Your task to perform on an android device: change keyboard looks Image 0: 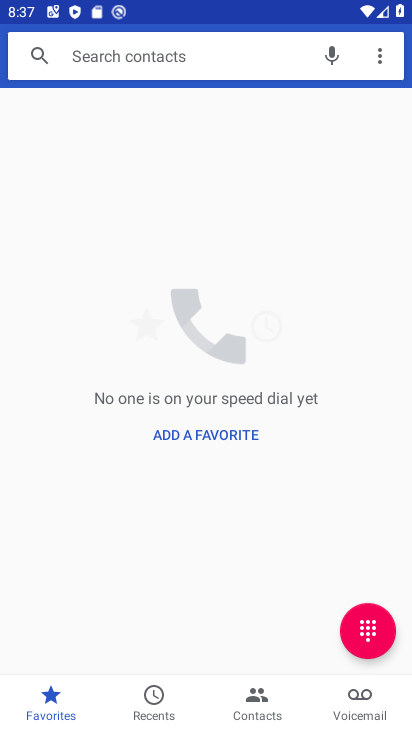
Step 0: press home button
Your task to perform on an android device: change keyboard looks Image 1: 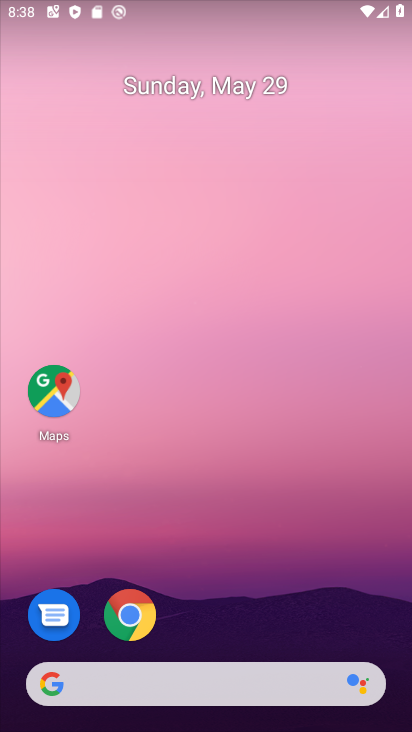
Step 1: drag from (218, 563) to (222, 1)
Your task to perform on an android device: change keyboard looks Image 2: 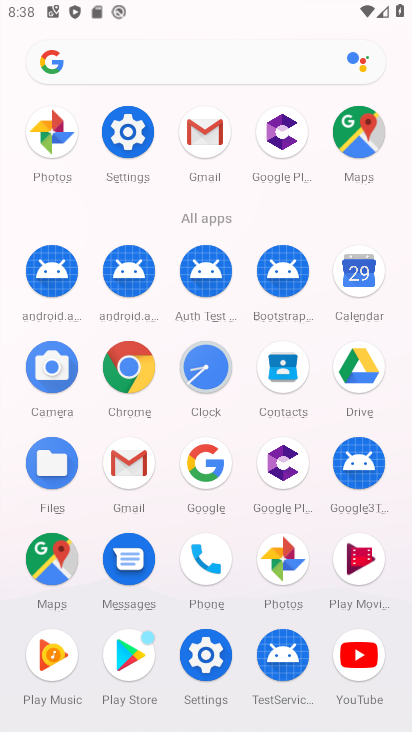
Step 2: click (131, 136)
Your task to perform on an android device: change keyboard looks Image 3: 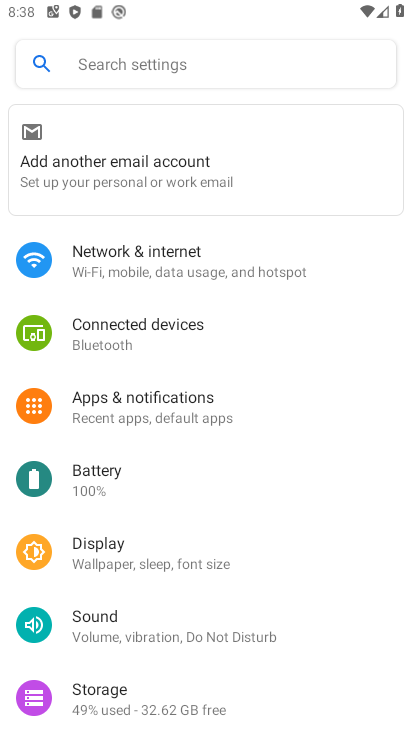
Step 3: drag from (199, 614) to (250, 1)
Your task to perform on an android device: change keyboard looks Image 4: 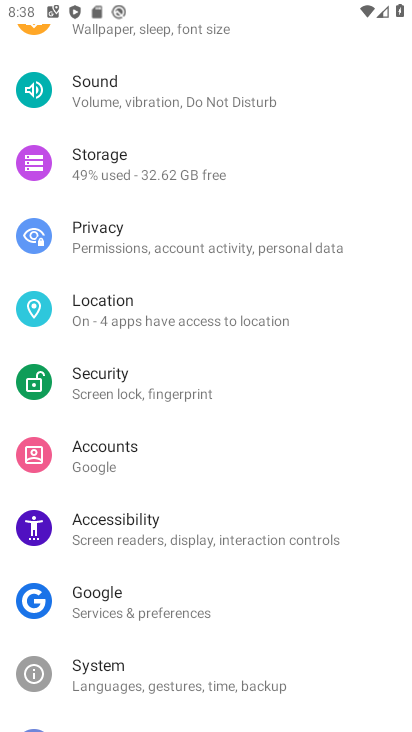
Step 4: click (120, 688)
Your task to perform on an android device: change keyboard looks Image 5: 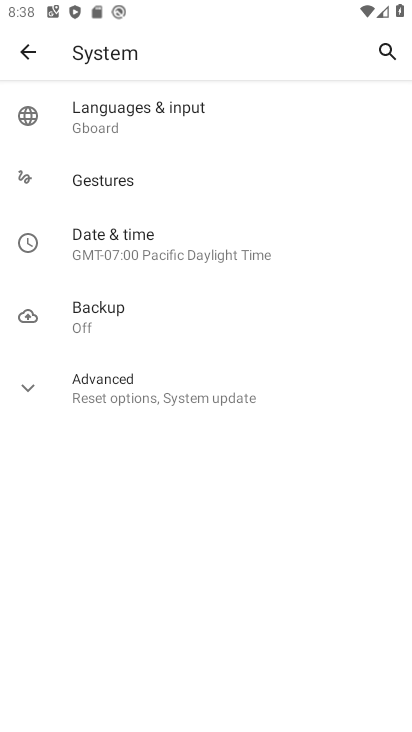
Step 5: click (119, 102)
Your task to perform on an android device: change keyboard looks Image 6: 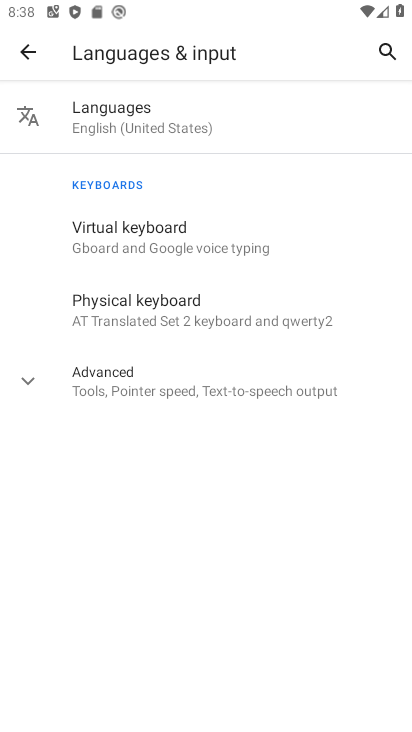
Step 6: click (122, 238)
Your task to perform on an android device: change keyboard looks Image 7: 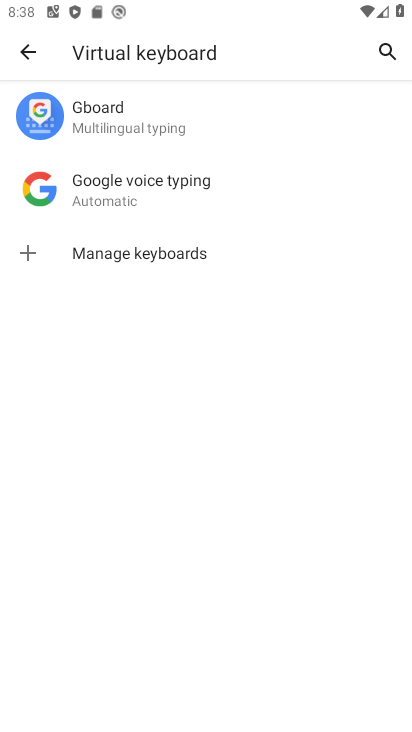
Step 7: click (129, 110)
Your task to perform on an android device: change keyboard looks Image 8: 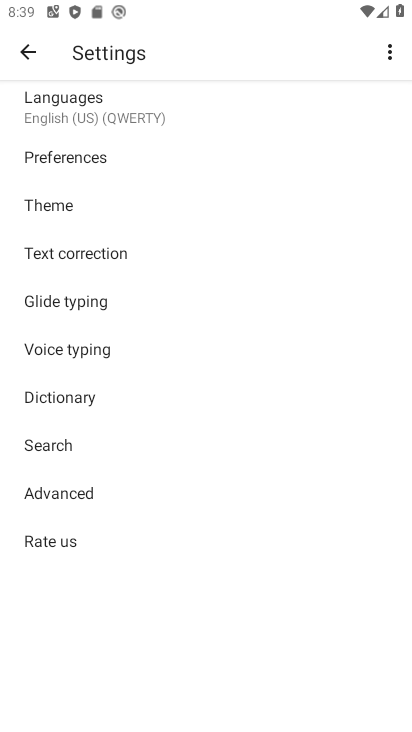
Step 8: click (80, 198)
Your task to perform on an android device: change keyboard looks Image 9: 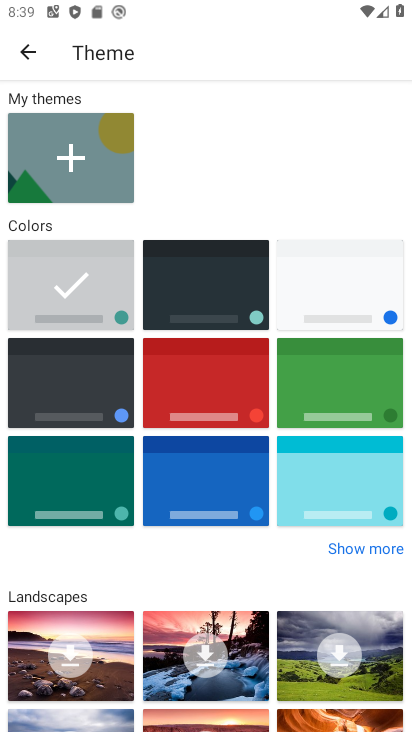
Step 9: click (193, 440)
Your task to perform on an android device: change keyboard looks Image 10: 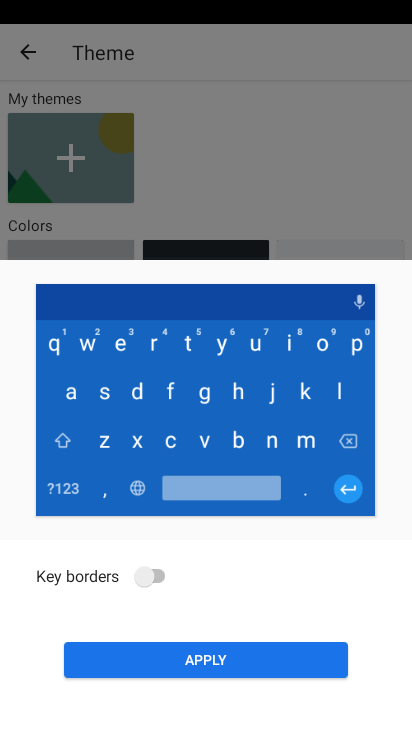
Step 10: click (201, 657)
Your task to perform on an android device: change keyboard looks Image 11: 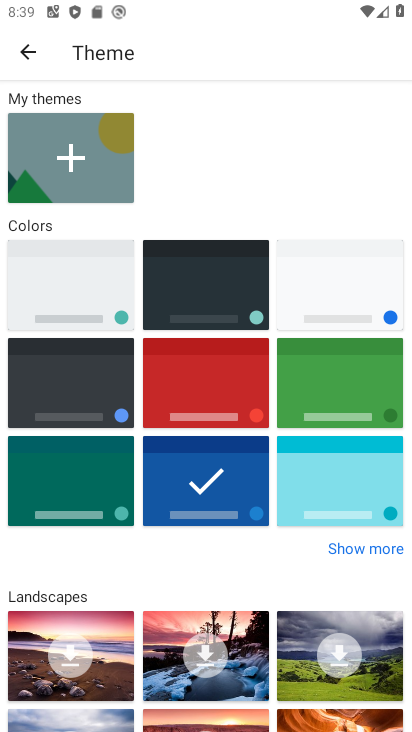
Step 11: task complete